Your task to perform on an android device: What's the weather today? Image 0: 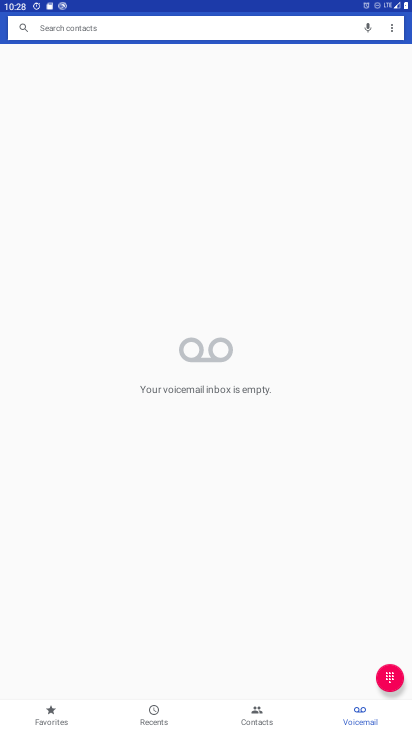
Step 0: press home button
Your task to perform on an android device: What's the weather today? Image 1: 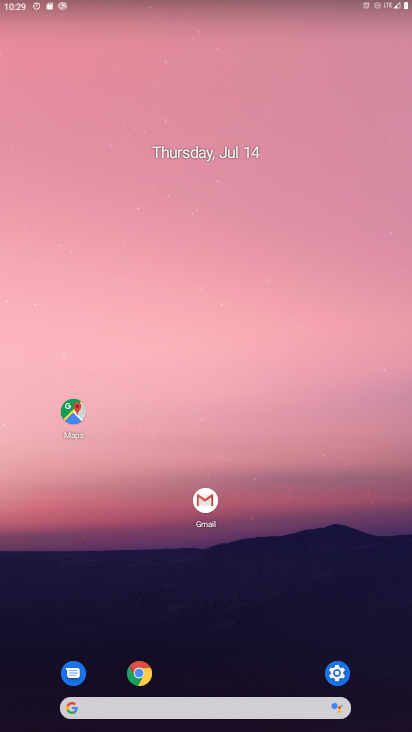
Step 1: click (240, 703)
Your task to perform on an android device: What's the weather today? Image 2: 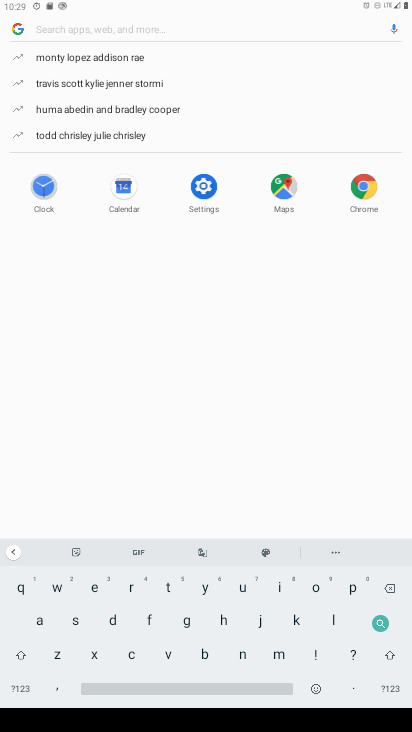
Step 2: click (51, 591)
Your task to perform on an android device: What's the weather today? Image 3: 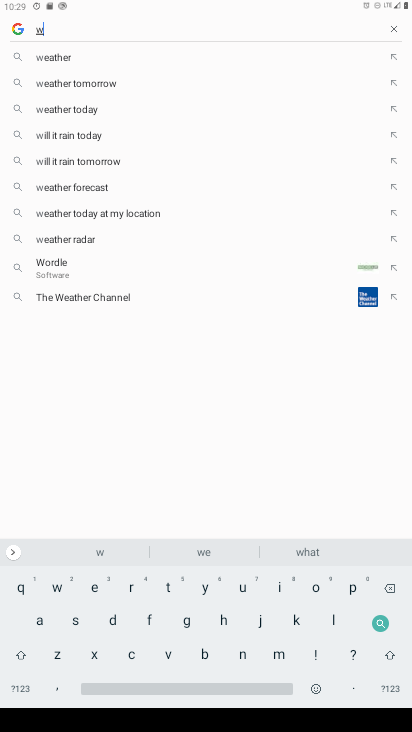
Step 3: click (88, 587)
Your task to perform on an android device: What's the weather today? Image 4: 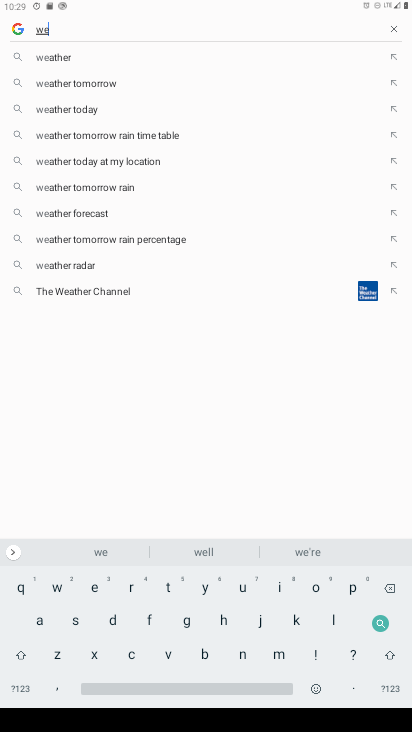
Step 4: click (112, 59)
Your task to perform on an android device: What's the weather today? Image 5: 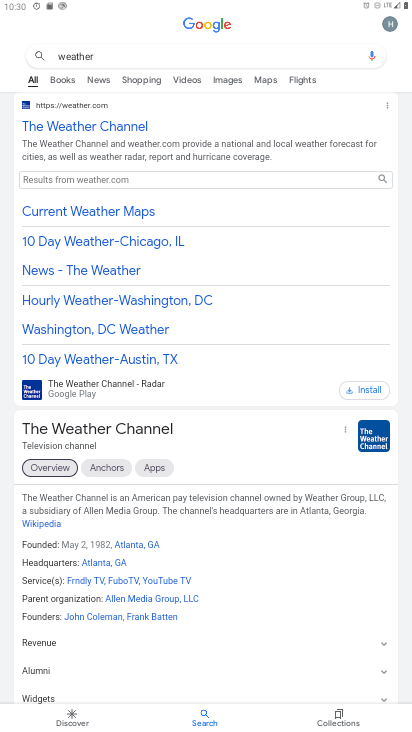
Step 5: click (83, 133)
Your task to perform on an android device: What's the weather today? Image 6: 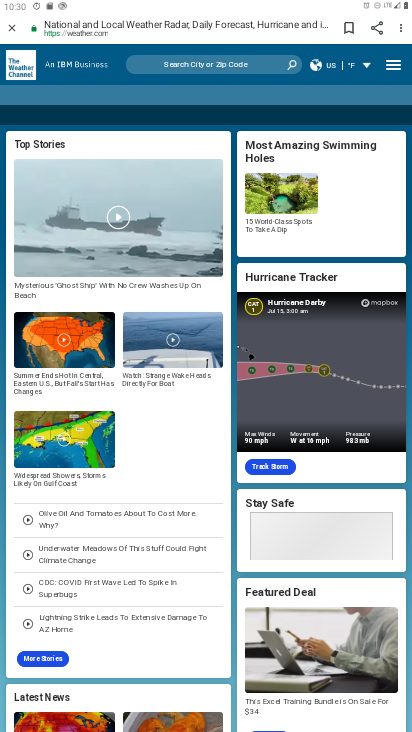
Step 6: task complete